Your task to perform on an android device: add a contact Image 0: 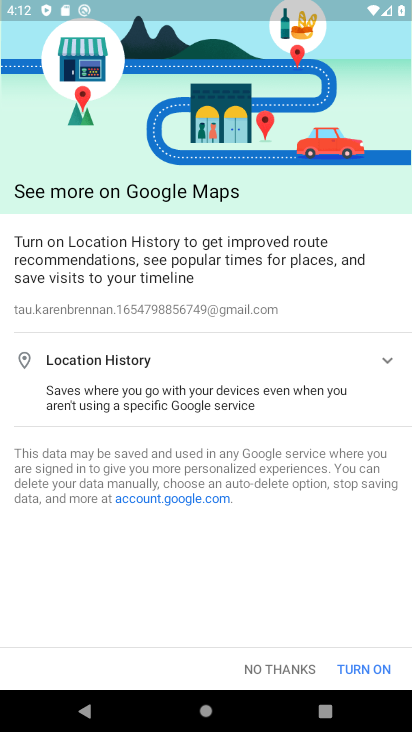
Step 0: click (259, 677)
Your task to perform on an android device: add a contact Image 1: 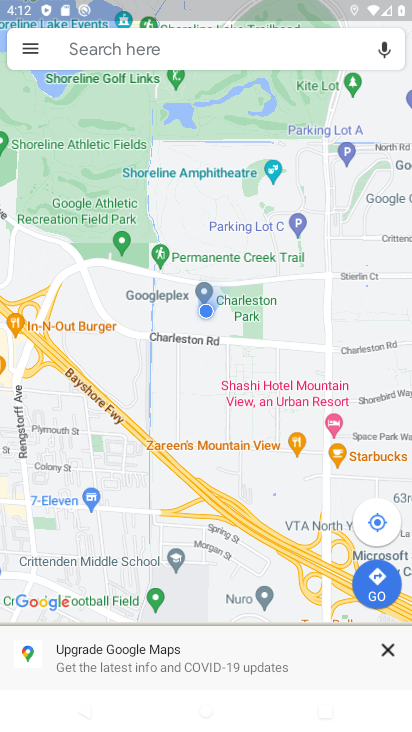
Step 1: press home button
Your task to perform on an android device: add a contact Image 2: 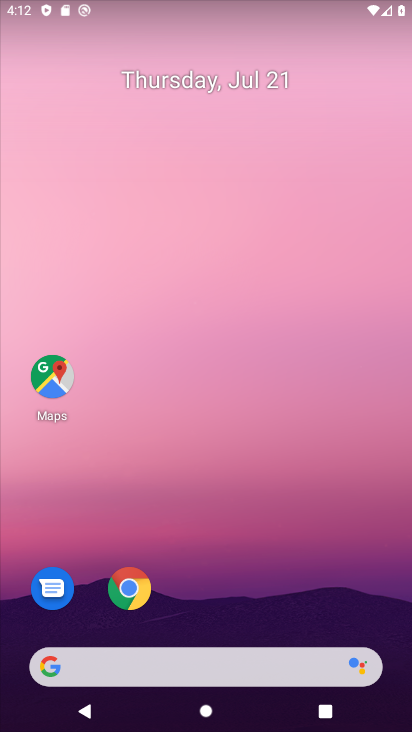
Step 2: drag from (264, 546) to (243, 42)
Your task to perform on an android device: add a contact Image 3: 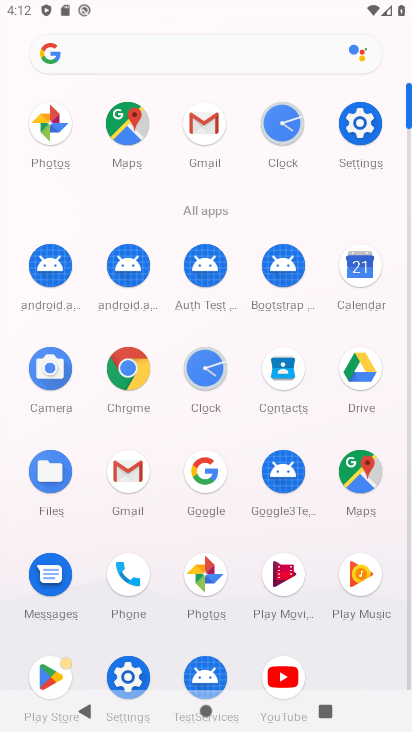
Step 3: click (281, 375)
Your task to perform on an android device: add a contact Image 4: 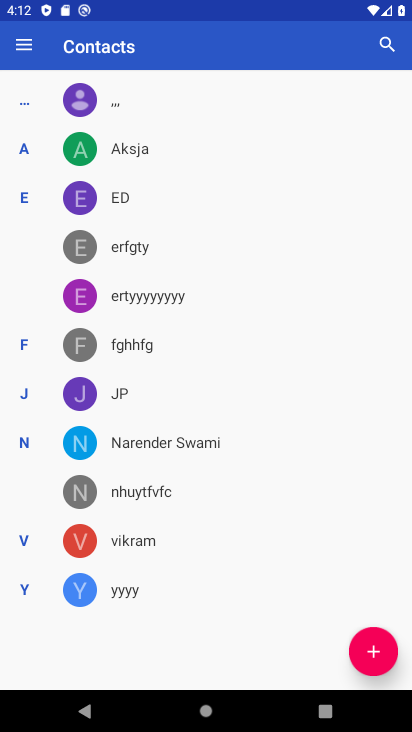
Step 4: click (378, 649)
Your task to perform on an android device: add a contact Image 5: 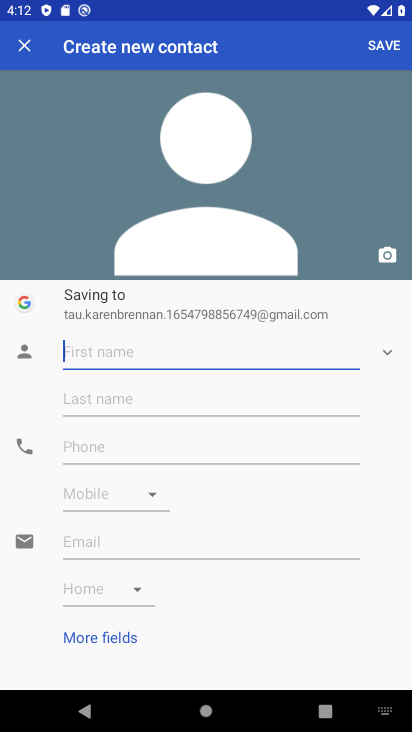
Step 5: type "fgvhjmj"
Your task to perform on an android device: add a contact Image 6: 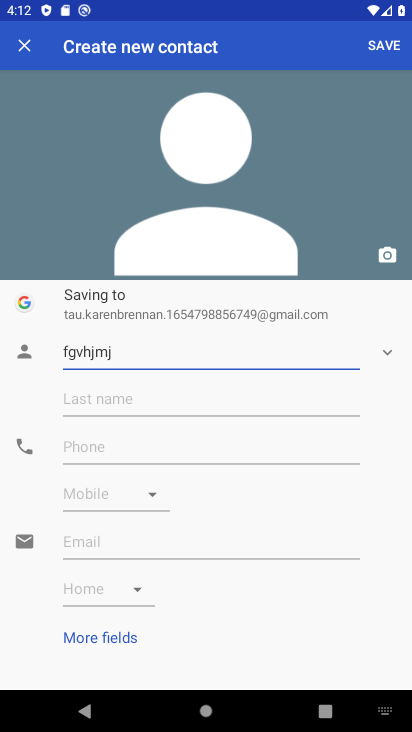
Step 6: press enter
Your task to perform on an android device: add a contact Image 7: 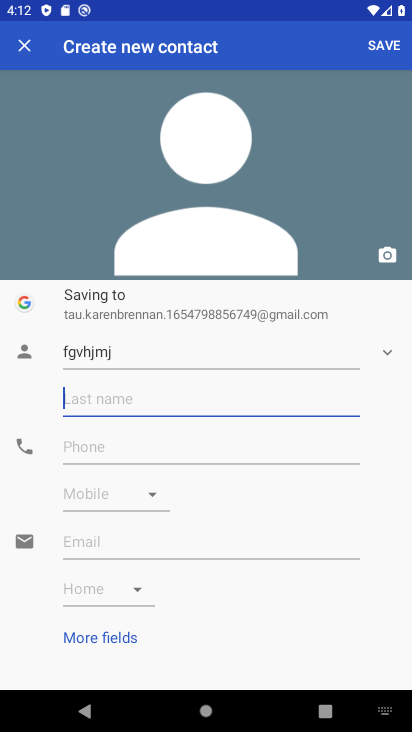
Step 7: click (127, 440)
Your task to perform on an android device: add a contact Image 8: 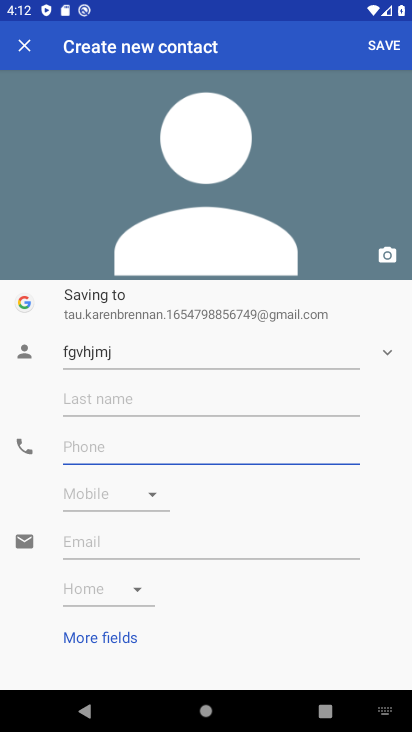
Step 8: type "8967456"
Your task to perform on an android device: add a contact Image 9: 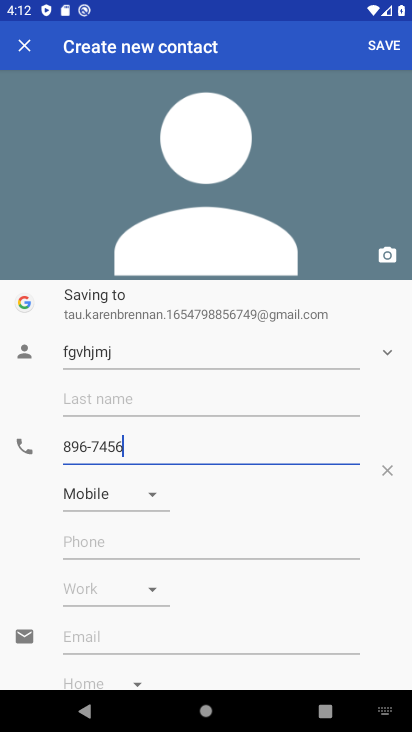
Step 9: press enter
Your task to perform on an android device: add a contact Image 10: 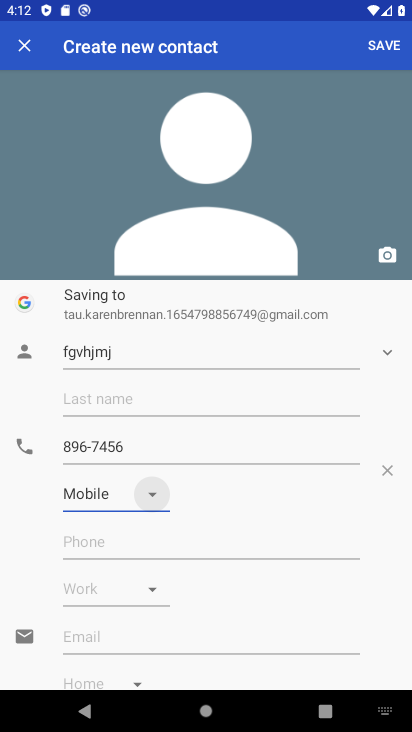
Step 10: click (376, 40)
Your task to perform on an android device: add a contact Image 11: 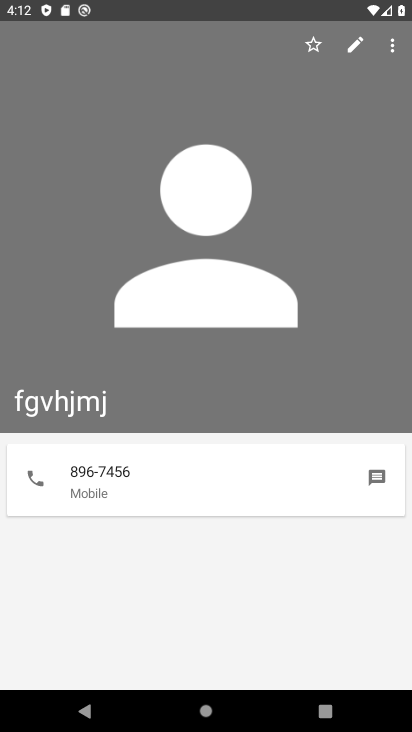
Step 11: task complete